Your task to perform on an android device: Go to Amazon Image 0: 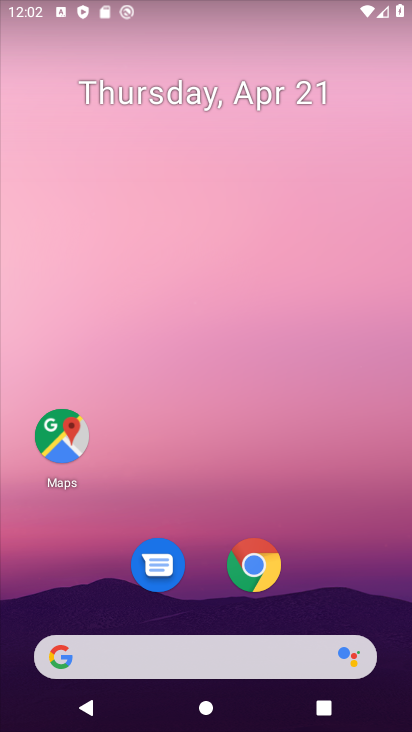
Step 0: click (257, 596)
Your task to perform on an android device: Go to Amazon Image 1: 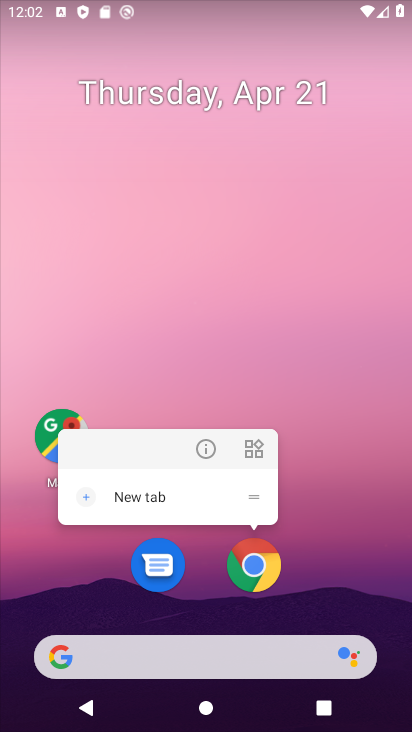
Step 1: click (203, 445)
Your task to perform on an android device: Go to Amazon Image 2: 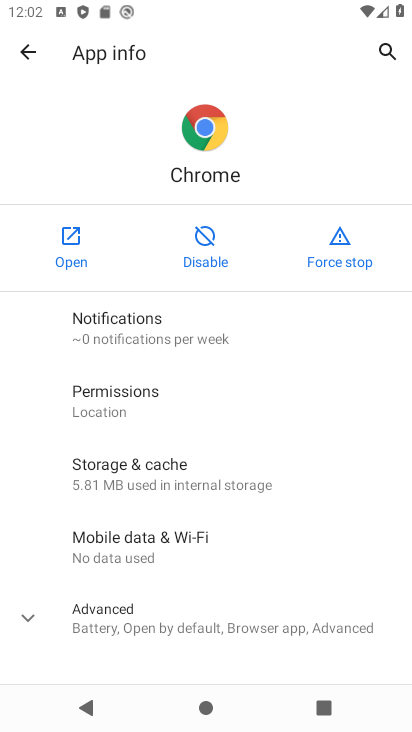
Step 2: click (62, 251)
Your task to perform on an android device: Go to Amazon Image 3: 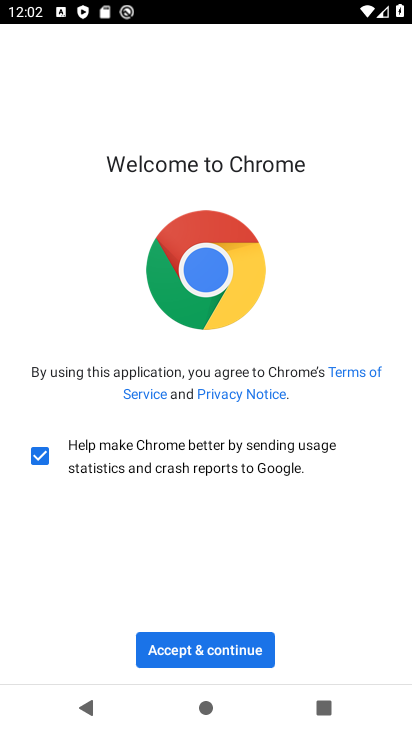
Step 3: click (231, 664)
Your task to perform on an android device: Go to Amazon Image 4: 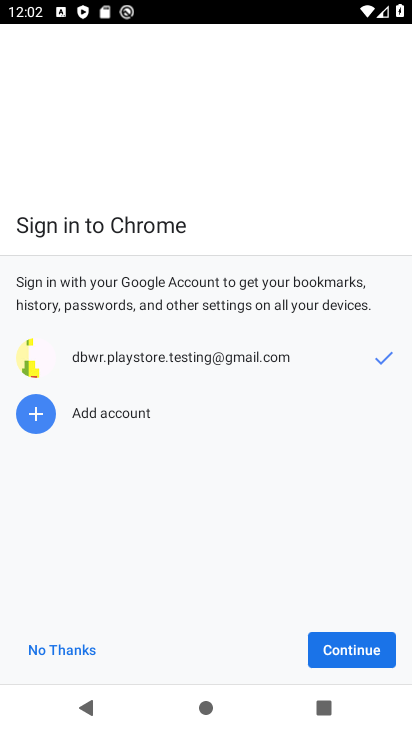
Step 4: click (330, 658)
Your task to perform on an android device: Go to Amazon Image 5: 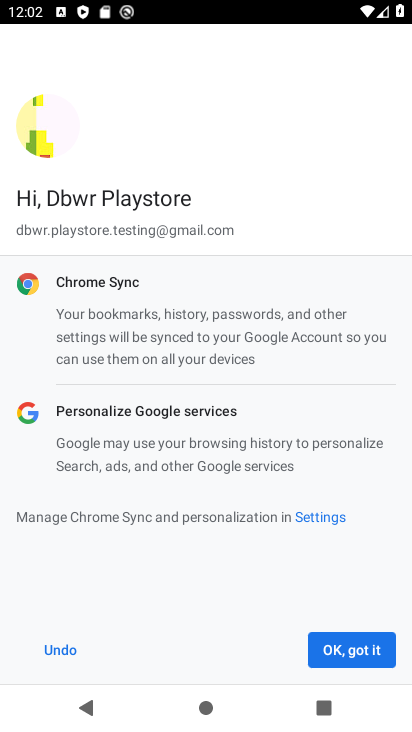
Step 5: click (335, 654)
Your task to perform on an android device: Go to Amazon Image 6: 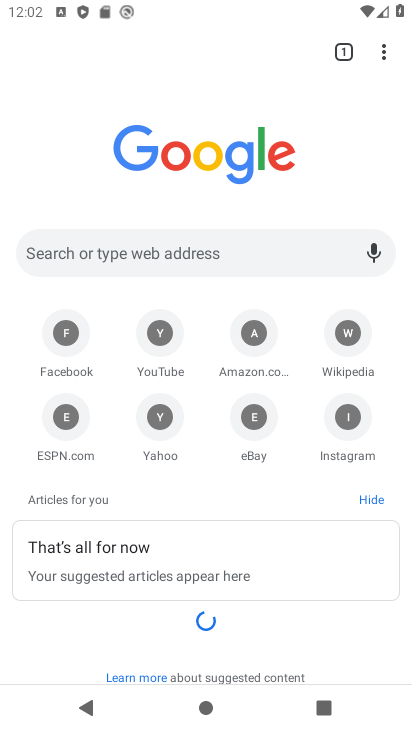
Step 6: click (203, 246)
Your task to perform on an android device: Go to Amazon Image 7: 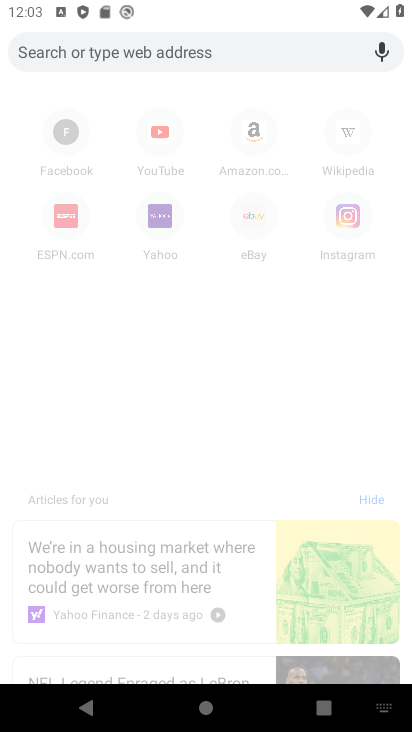
Step 7: type "Amazon"
Your task to perform on an android device: Go to Amazon Image 8: 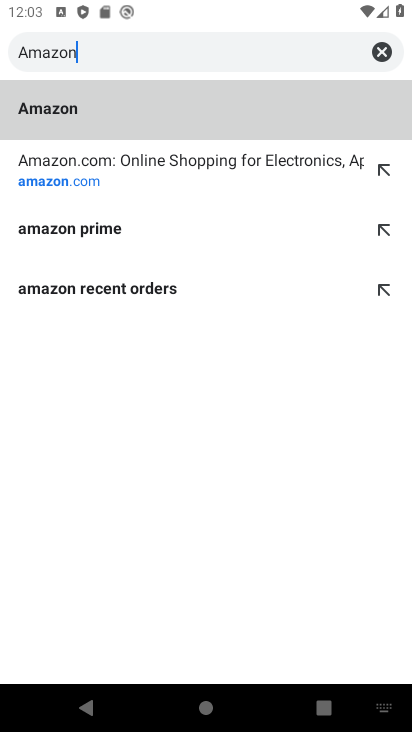
Step 8: type ""
Your task to perform on an android device: Go to Amazon Image 9: 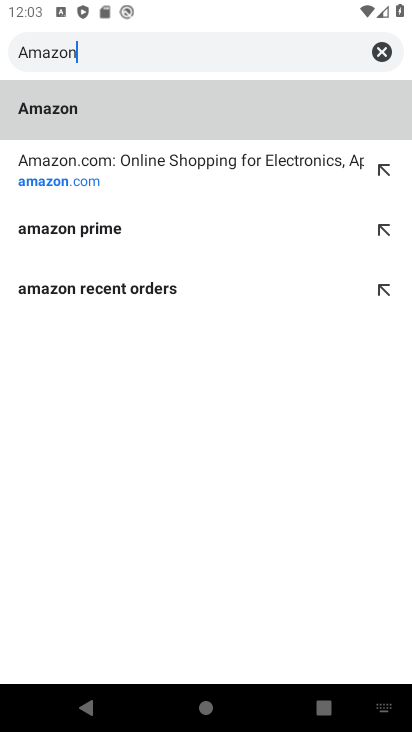
Step 9: click (155, 158)
Your task to perform on an android device: Go to Amazon Image 10: 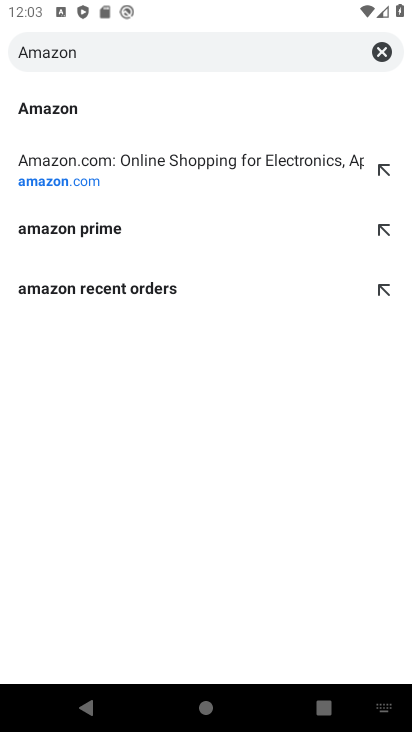
Step 10: click (205, 171)
Your task to perform on an android device: Go to Amazon Image 11: 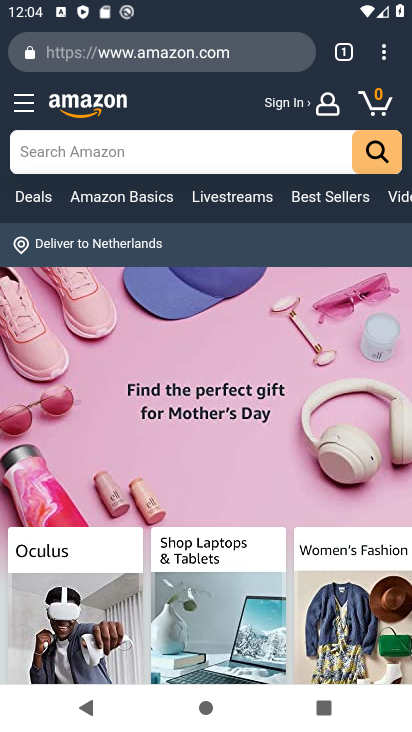
Step 11: task complete